Your task to perform on an android device: change timer sound Image 0: 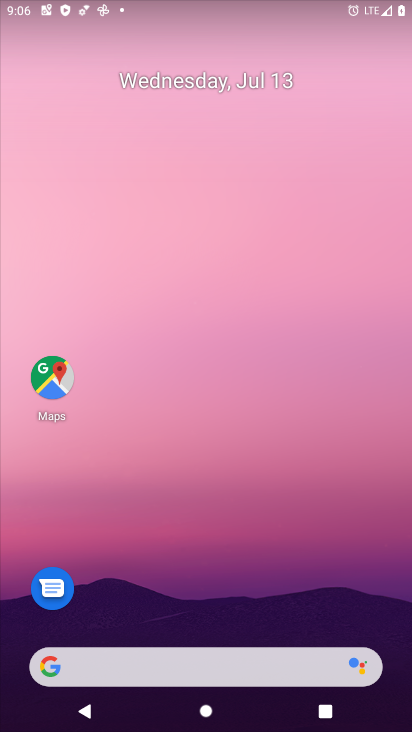
Step 0: drag from (180, 535) to (267, 0)
Your task to perform on an android device: change timer sound Image 1: 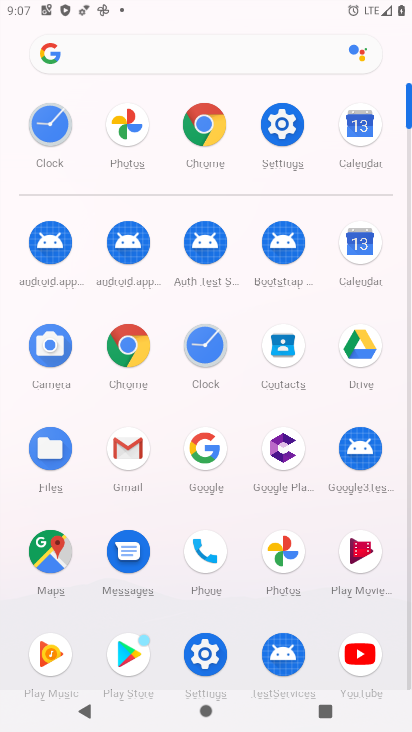
Step 1: click (56, 132)
Your task to perform on an android device: change timer sound Image 2: 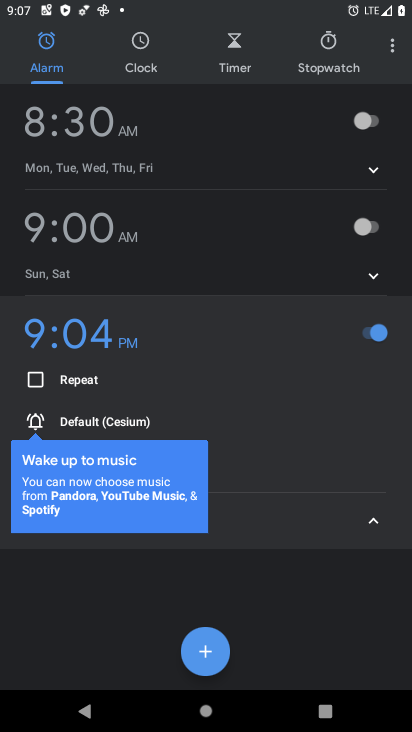
Step 2: click (394, 46)
Your task to perform on an android device: change timer sound Image 3: 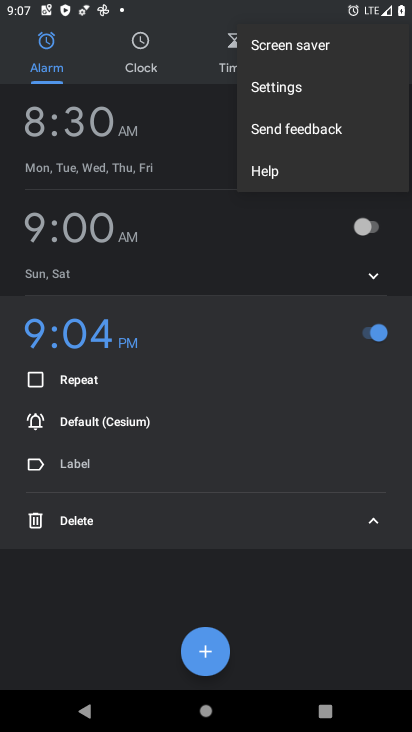
Step 3: click (325, 97)
Your task to perform on an android device: change timer sound Image 4: 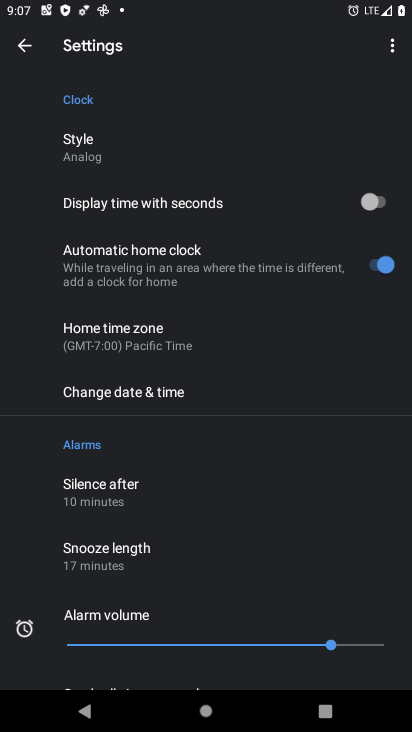
Step 4: drag from (193, 552) to (212, 4)
Your task to perform on an android device: change timer sound Image 5: 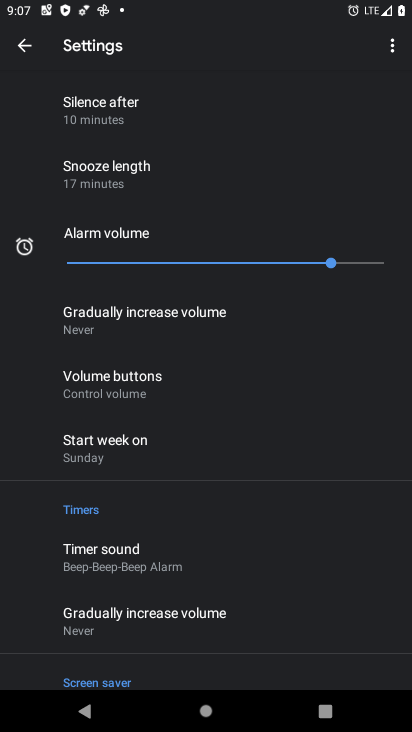
Step 5: click (136, 563)
Your task to perform on an android device: change timer sound Image 6: 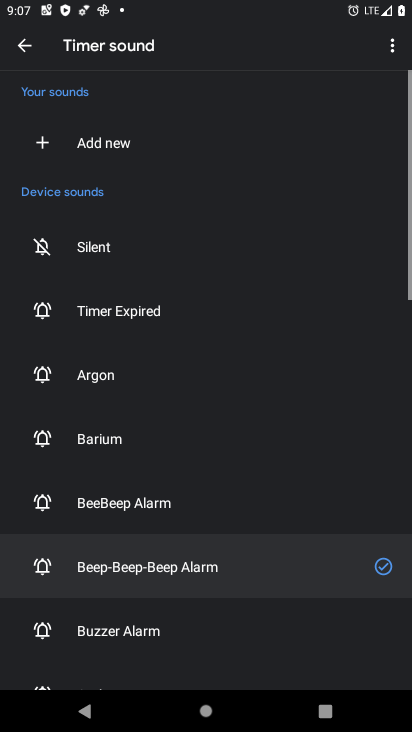
Step 6: click (81, 440)
Your task to perform on an android device: change timer sound Image 7: 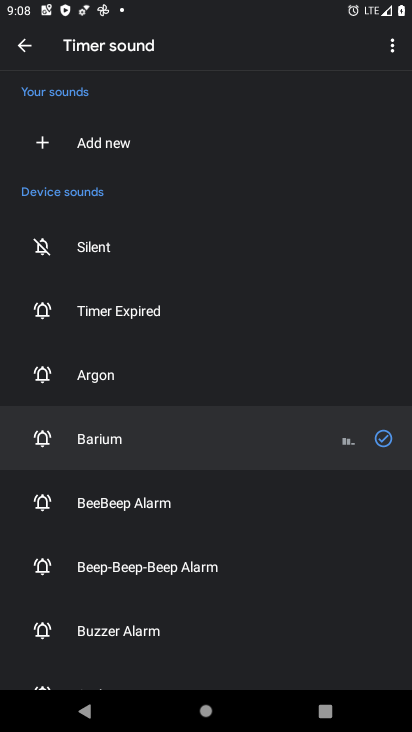
Step 7: task complete